Your task to perform on an android device: Go to sound settings Image 0: 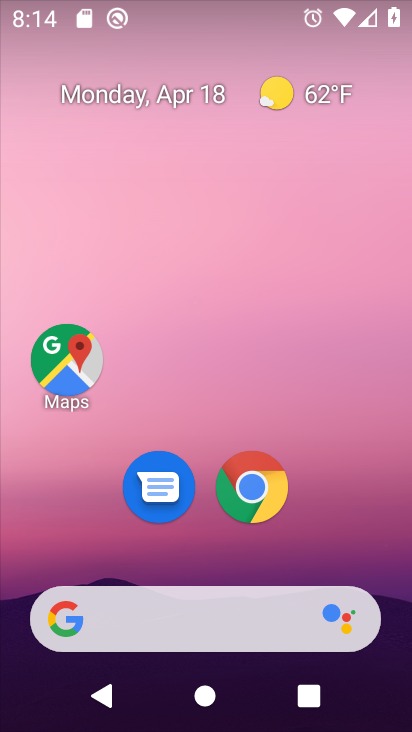
Step 0: press home button
Your task to perform on an android device: Go to sound settings Image 1: 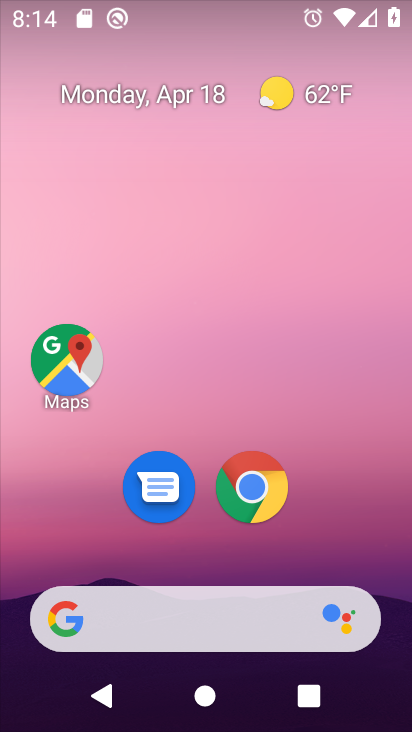
Step 1: drag from (202, 556) to (249, 92)
Your task to perform on an android device: Go to sound settings Image 2: 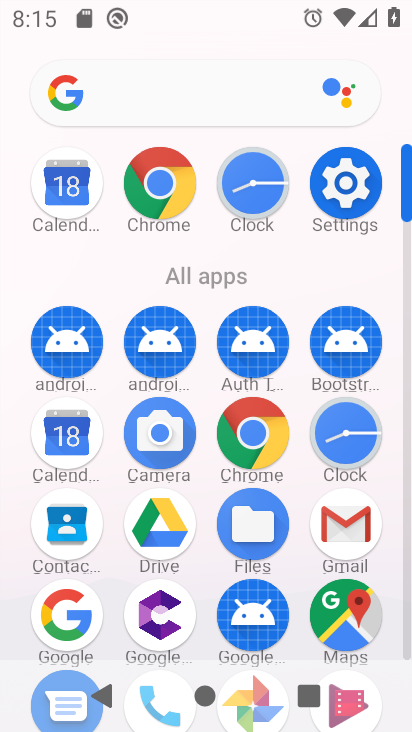
Step 2: click (360, 169)
Your task to perform on an android device: Go to sound settings Image 3: 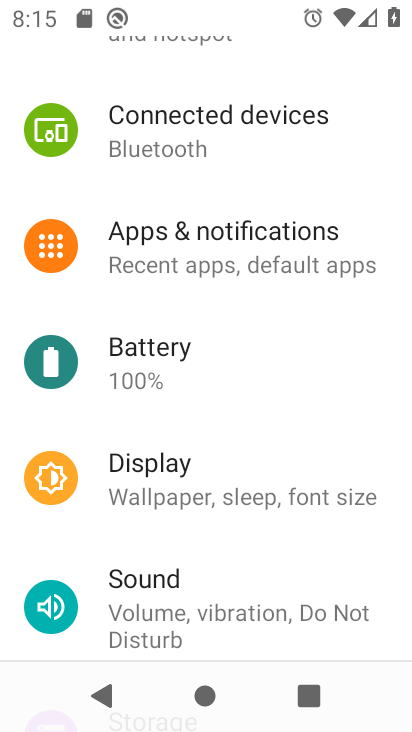
Step 3: click (188, 610)
Your task to perform on an android device: Go to sound settings Image 4: 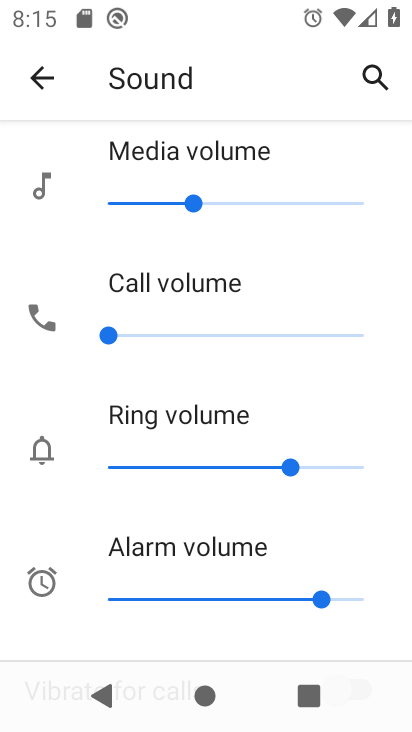
Step 4: drag from (213, 625) to (243, 131)
Your task to perform on an android device: Go to sound settings Image 5: 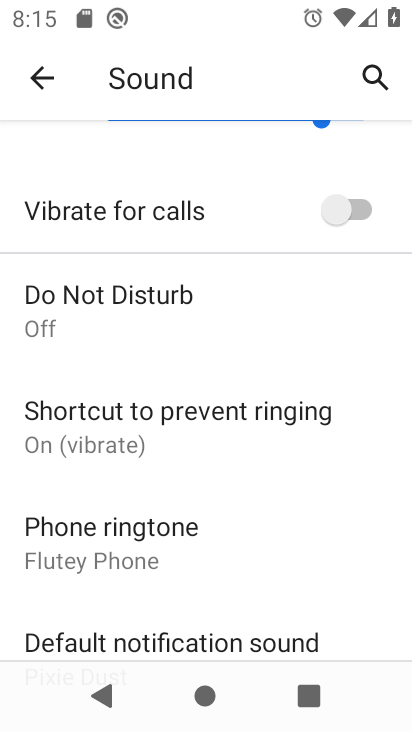
Step 5: drag from (224, 569) to (256, 154)
Your task to perform on an android device: Go to sound settings Image 6: 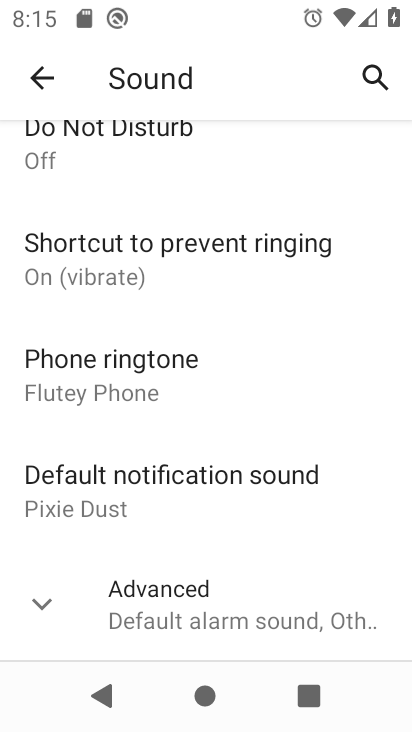
Step 6: click (40, 600)
Your task to perform on an android device: Go to sound settings Image 7: 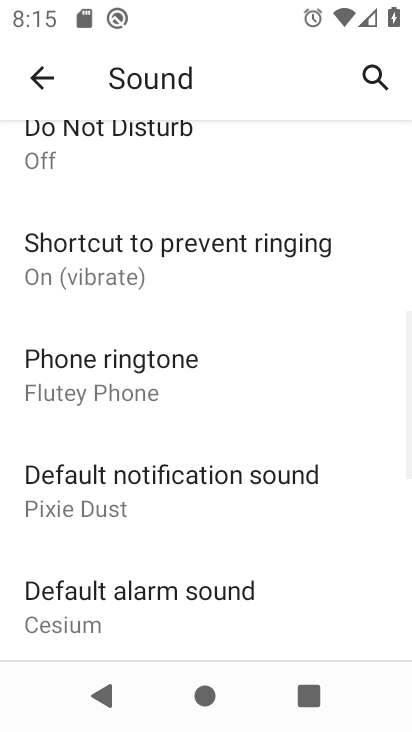
Step 7: task complete